Your task to perform on an android device: turn off smart reply in the gmail app Image 0: 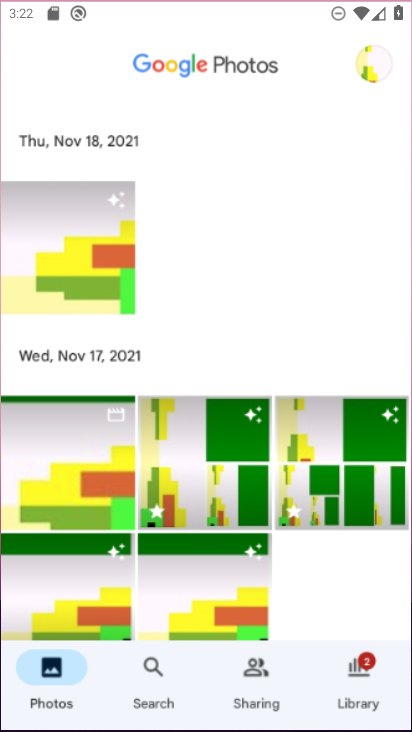
Step 0: drag from (150, 620) to (229, 131)
Your task to perform on an android device: turn off smart reply in the gmail app Image 1: 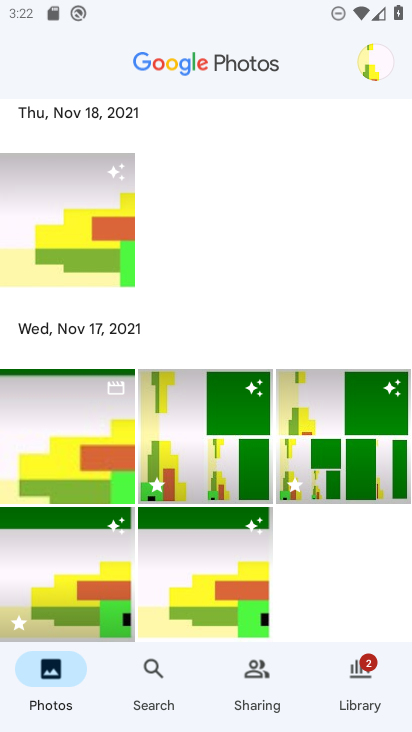
Step 1: drag from (327, 568) to (366, 255)
Your task to perform on an android device: turn off smart reply in the gmail app Image 2: 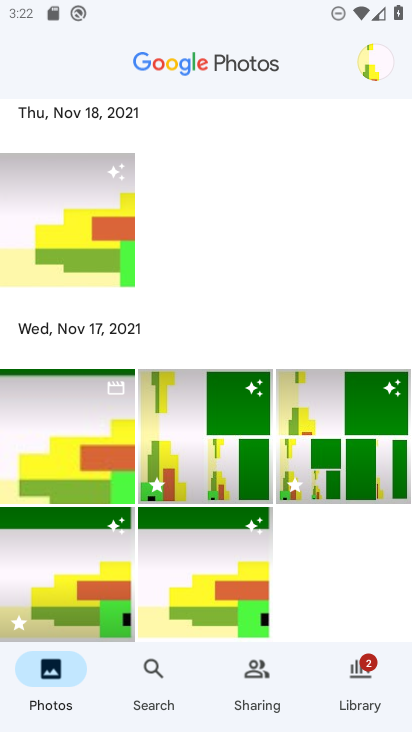
Step 2: click (335, 604)
Your task to perform on an android device: turn off smart reply in the gmail app Image 3: 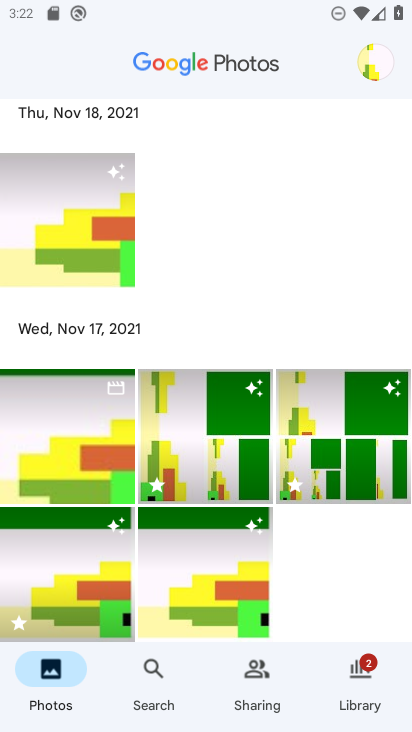
Step 3: click (339, 581)
Your task to perform on an android device: turn off smart reply in the gmail app Image 4: 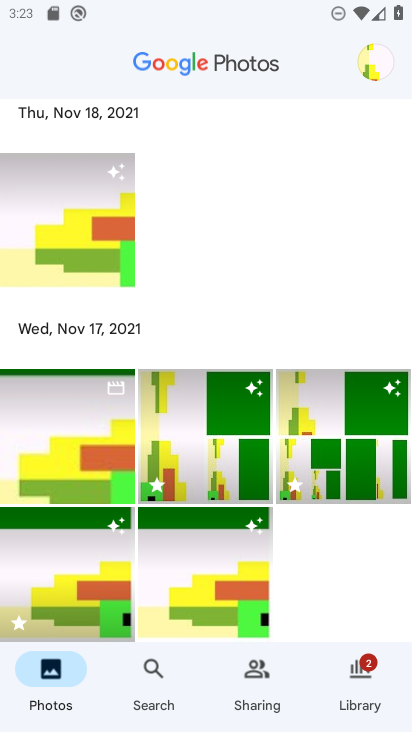
Step 4: press home button
Your task to perform on an android device: turn off smart reply in the gmail app Image 5: 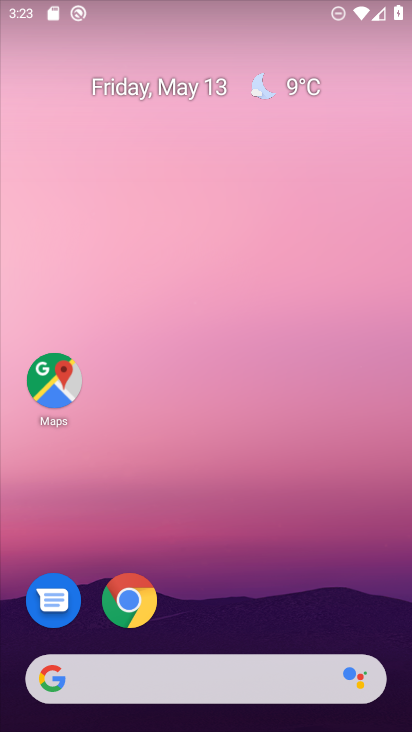
Step 5: drag from (215, 616) to (301, 141)
Your task to perform on an android device: turn off smart reply in the gmail app Image 6: 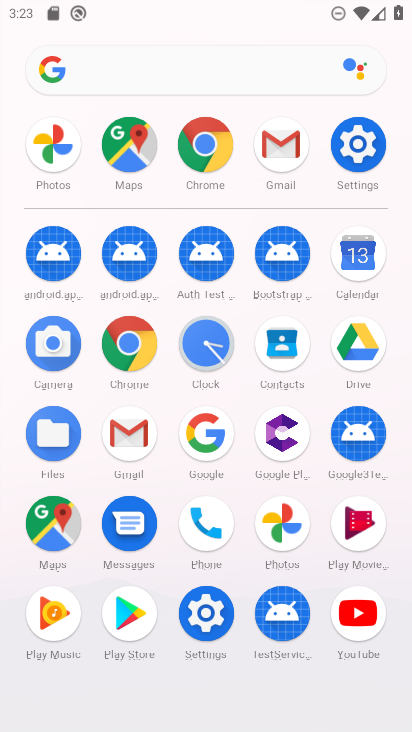
Step 6: click (117, 422)
Your task to perform on an android device: turn off smart reply in the gmail app Image 7: 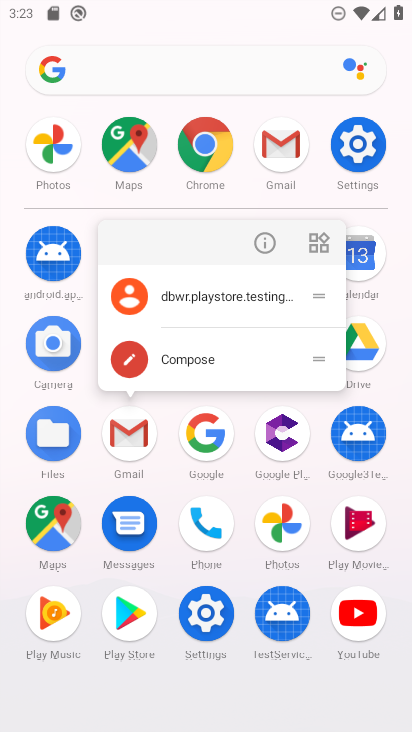
Step 7: click (275, 240)
Your task to perform on an android device: turn off smart reply in the gmail app Image 8: 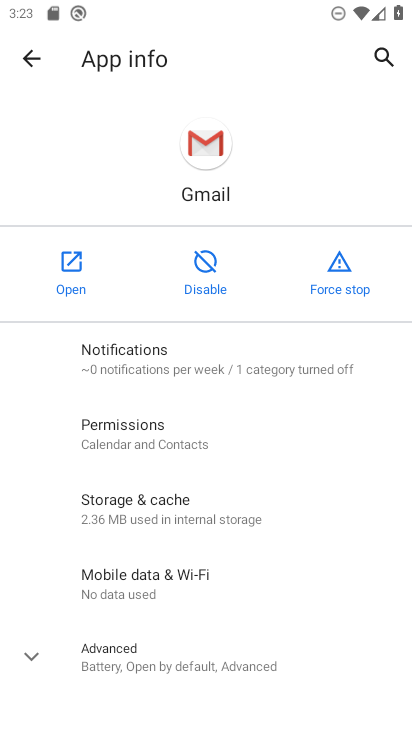
Step 8: click (75, 295)
Your task to perform on an android device: turn off smart reply in the gmail app Image 9: 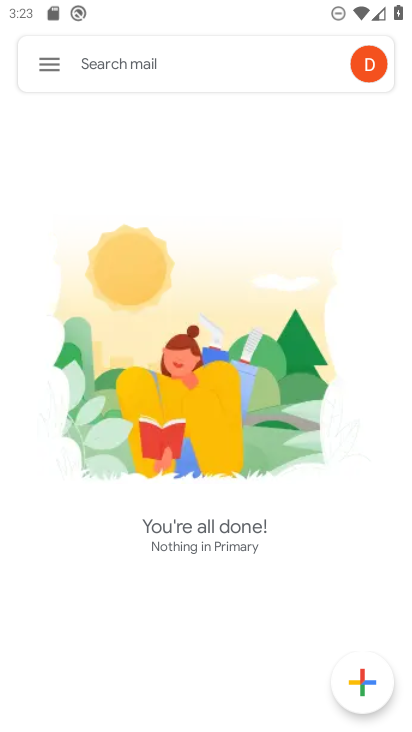
Step 9: drag from (247, 631) to (244, 235)
Your task to perform on an android device: turn off smart reply in the gmail app Image 10: 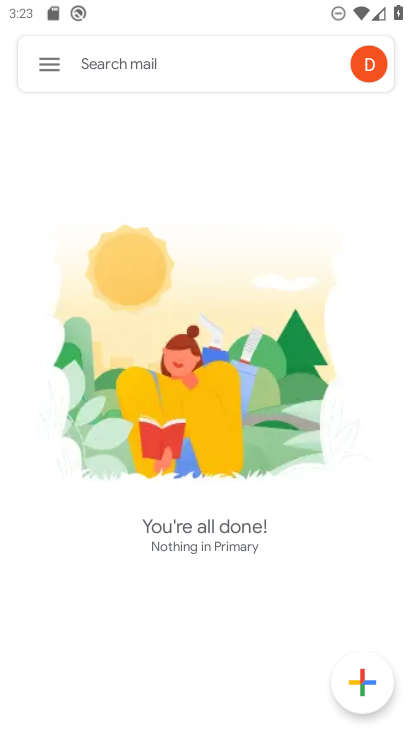
Step 10: click (50, 59)
Your task to perform on an android device: turn off smart reply in the gmail app Image 11: 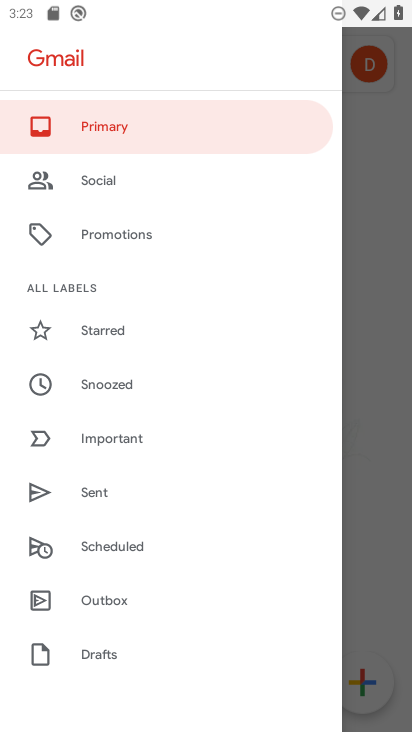
Step 11: drag from (181, 602) to (220, 162)
Your task to perform on an android device: turn off smart reply in the gmail app Image 12: 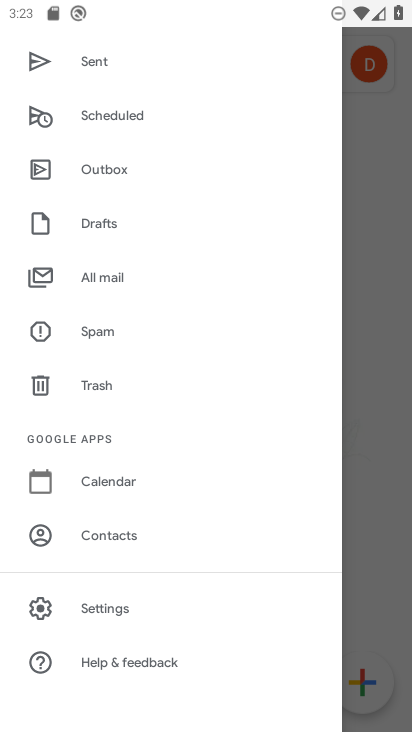
Step 12: click (154, 601)
Your task to perform on an android device: turn off smart reply in the gmail app Image 13: 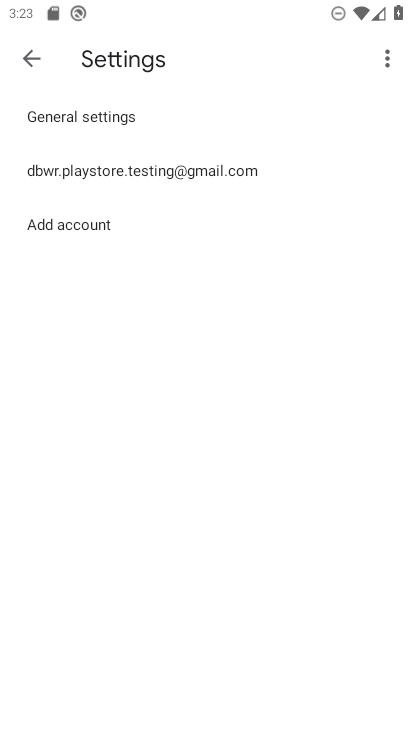
Step 13: click (119, 161)
Your task to perform on an android device: turn off smart reply in the gmail app Image 14: 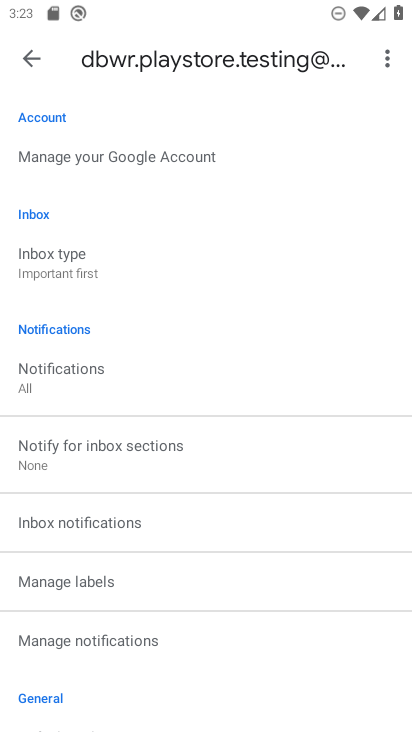
Step 14: task complete